Your task to perform on an android device: make emails show in primary in the gmail app Image 0: 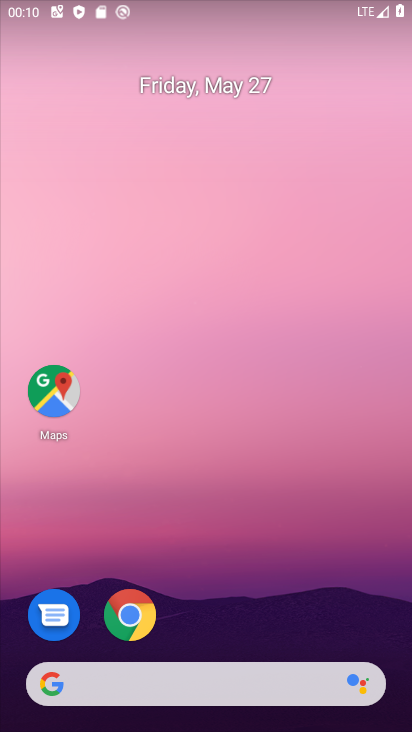
Step 0: drag from (275, 592) to (293, 24)
Your task to perform on an android device: make emails show in primary in the gmail app Image 1: 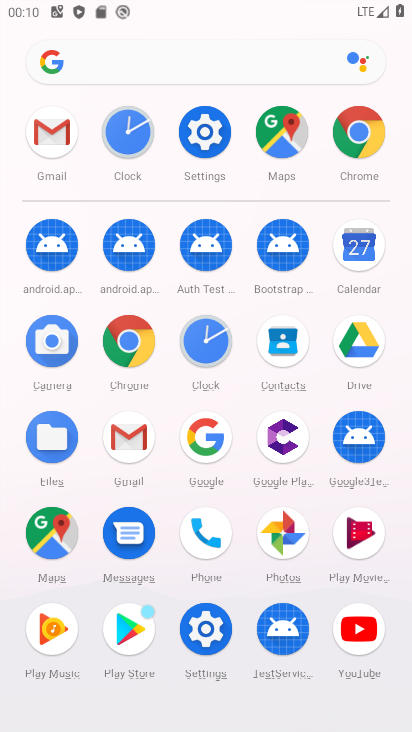
Step 1: click (139, 433)
Your task to perform on an android device: make emails show in primary in the gmail app Image 2: 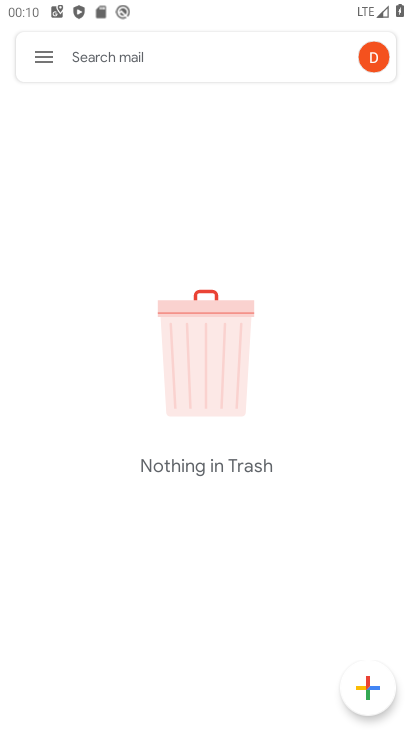
Step 2: click (39, 47)
Your task to perform on an android device: make emails show in primary in the gmail app Image 3: 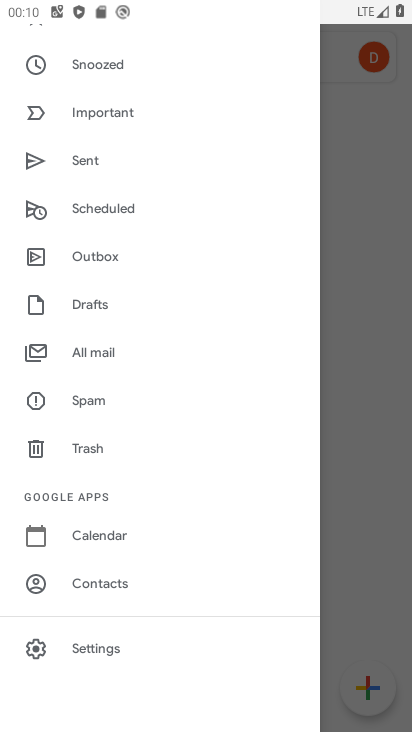
Step 3: task complete